Your task to perform on an android device: Go to settings Image 0: 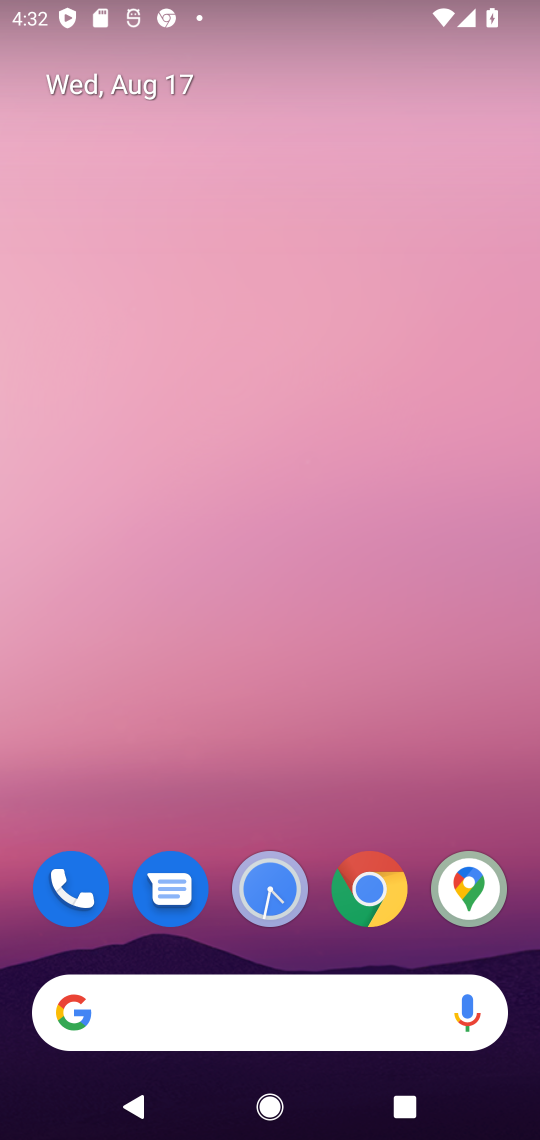
Step 0: drag from (286, 784) to (203, 84)
Your task to perform on an android device: Go to settings Image 1: 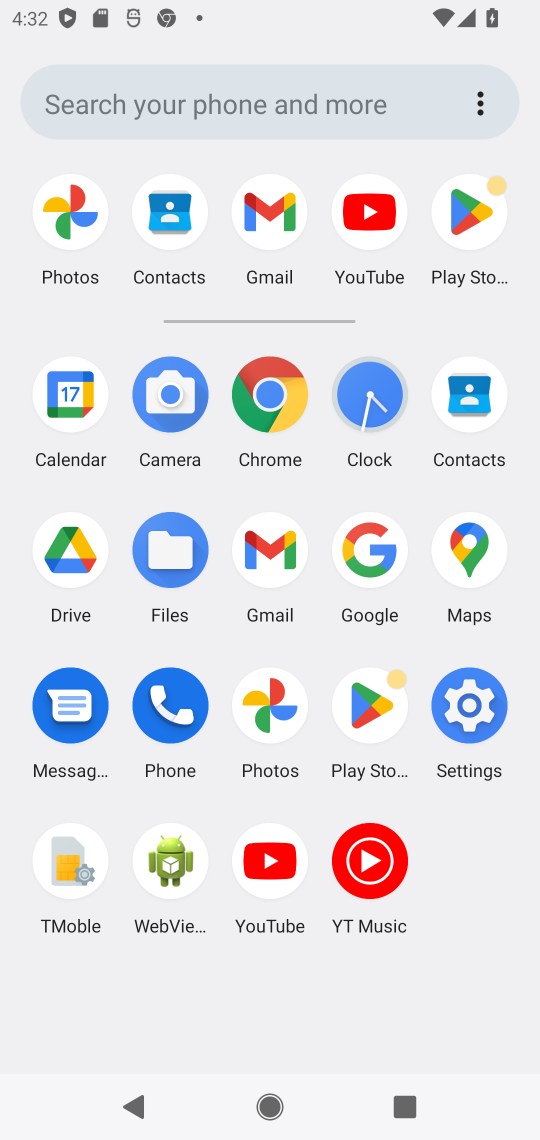
Step 1: click (462, 700)
Your task to perform on an android device: Go to settings Image 2: 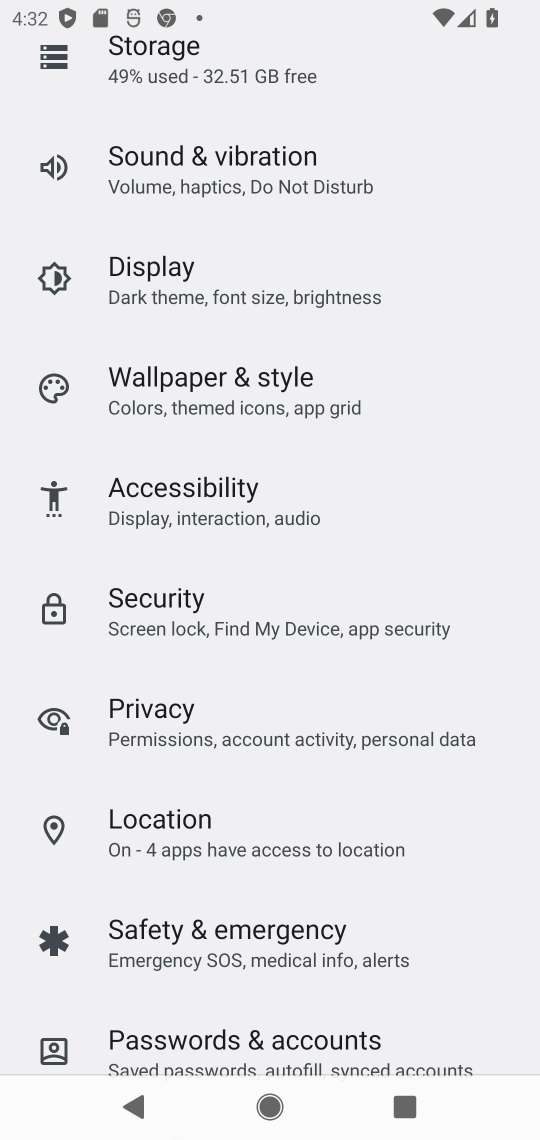
Step 2: task complete